Your task to perform on an android device: empty trash in google photos Image 0: 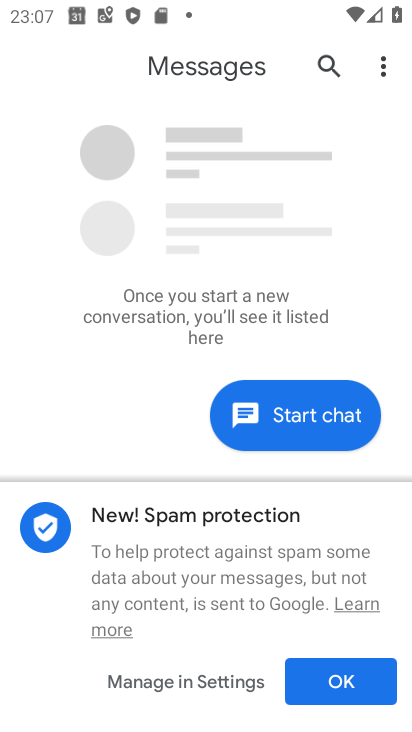
Step 0: press home button
Your task to perform on an android device: empty trash in google photos Image 1: 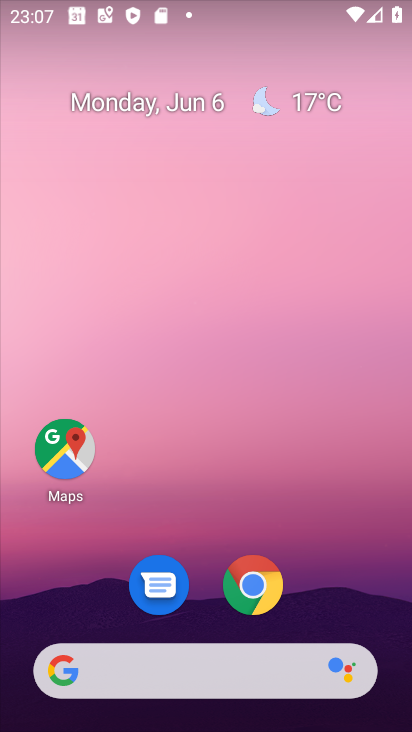
Step 1: drag from (218, 530) to (267, 12)
Your task to perform on an android device: empty trash in google photos Image 2: 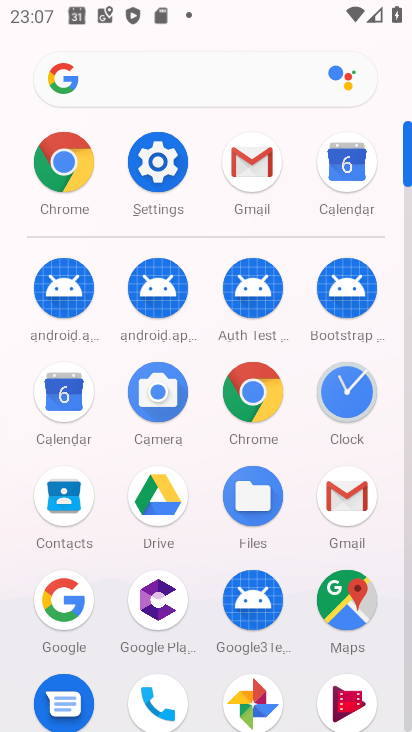
Step 2: drag from (205, 424) to (210, 178)
Your task to perform on an android device: empty trash in google photos Image 3: 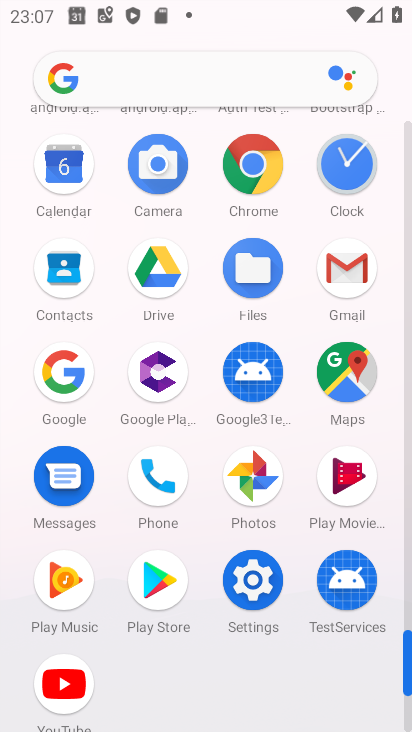
Step 3: click (265, 474)
Your task to perform on an android device: empty trash in google photos Image 4: 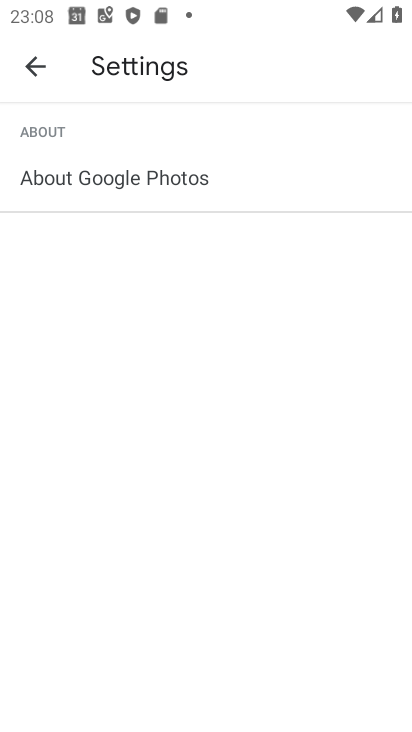
Step 4: click (28, 61)
Your task to perform on an android device: empty trash in google photos Image 5: 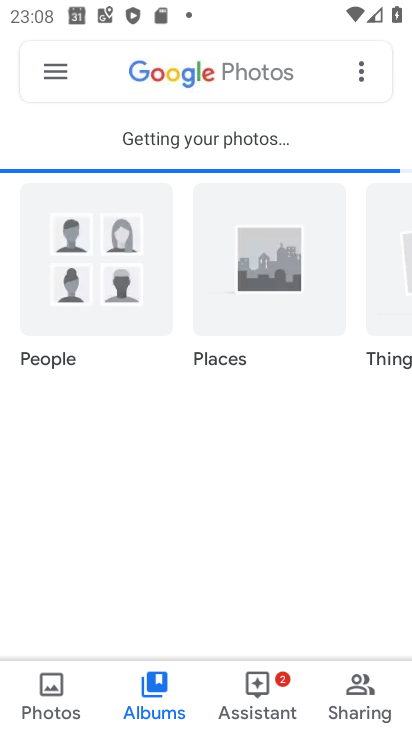
Step 5: click (47, 78)
Your task to perform on an android device: empty trash in google photos Image 6: 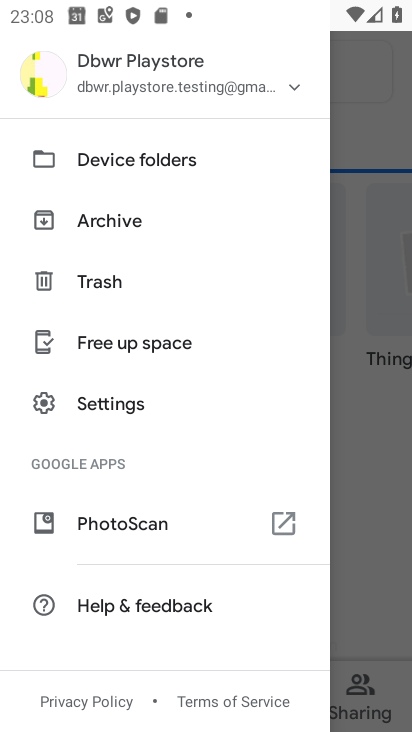
Step 6: click (100, 282)
Your task to perform on an android device: empty trash in google photos Image 7: 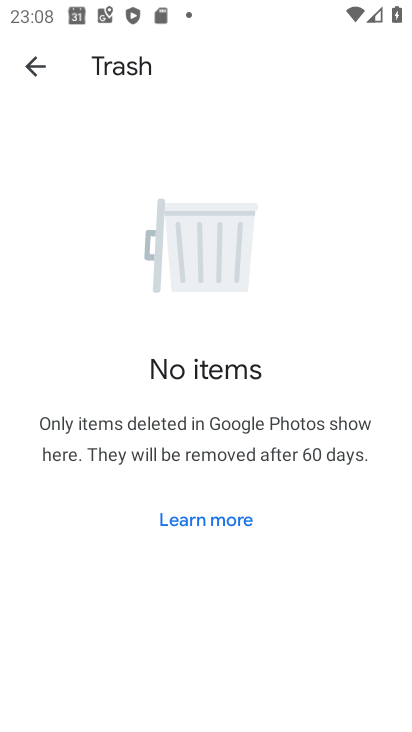
Step 7: task complete